Your task to perform on an android device: What's the weather today? Image 0: 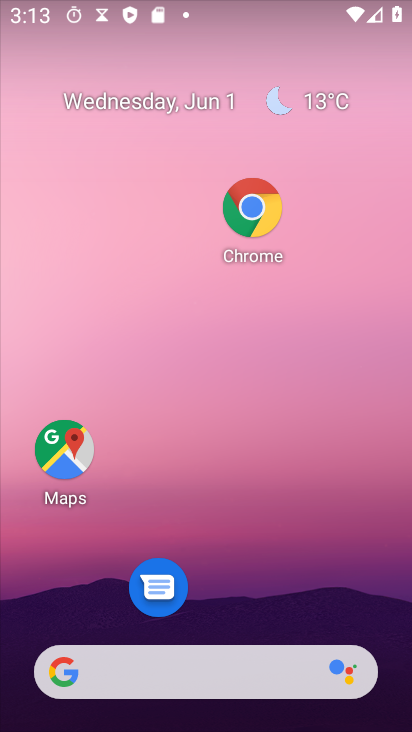
Step 0: click (144, 173)
Your task to perform on an android device: What's the weather today? Image 1: 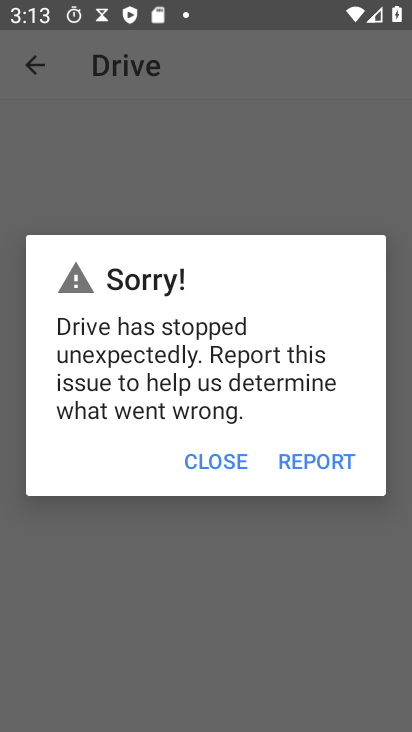
Step 1: click (218, 468)
Your task to perform on an android device: What's the weather today? Image 2: 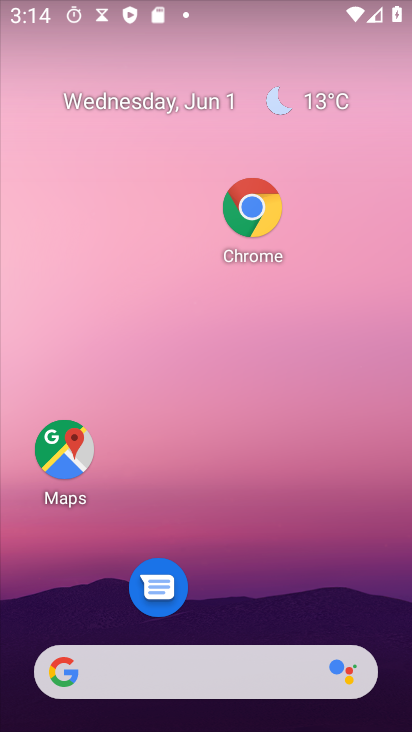
Step 2: drag from (5, 252) to (384, 388)
Your task to perform on an android device: What's the weather today? Image 3: 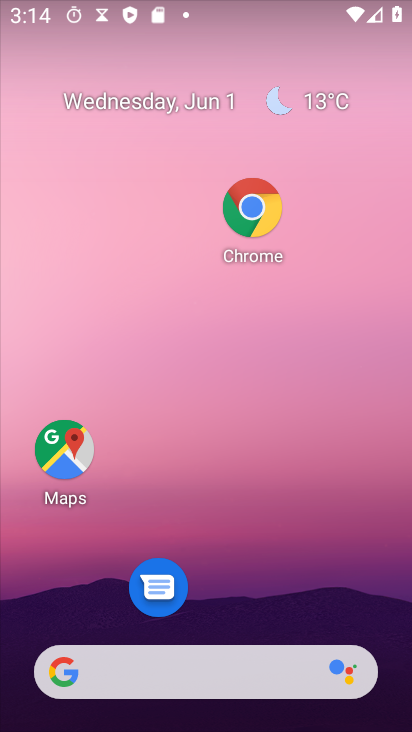
Step 3: drag from (97, 273) to (389, 425)
Your task to perform on an android device: What's the weather today? Image 4: 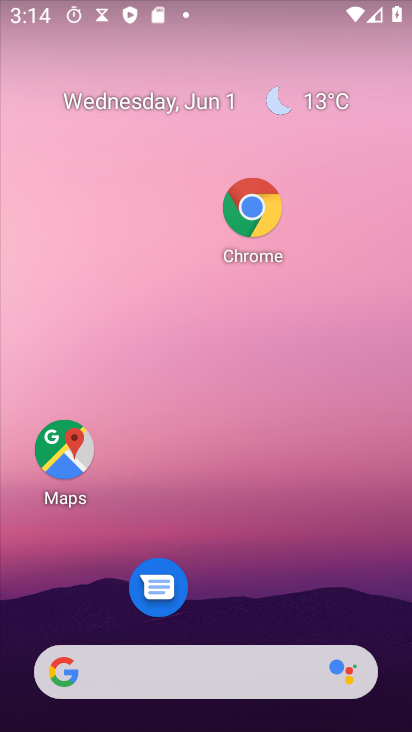
Step 4: drag from (355, 507) to (388, 531)
Your task to perform on an android device: What's the weather today? Image 5: 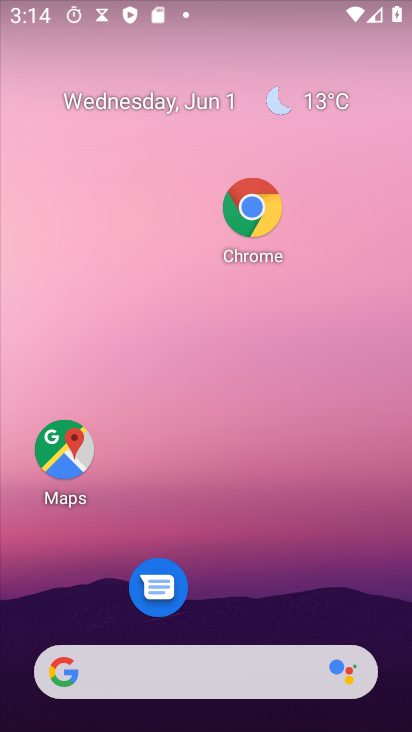
Step 5: drag from (4, 157) to (374, 471)
Your task to perform on an android device: What's the weather today? Image 6: 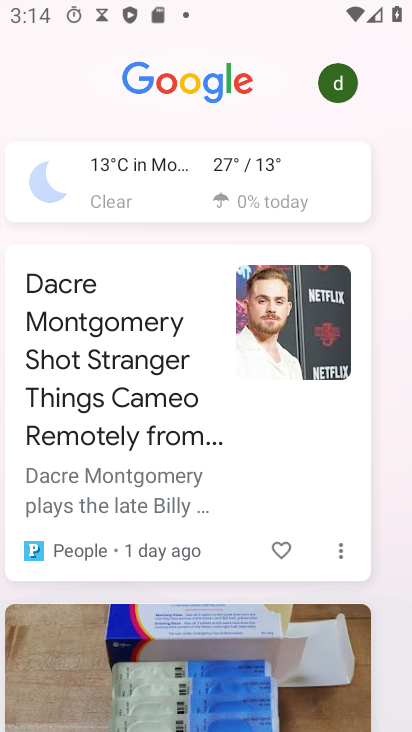
Step 6: drag from (7, 178) to (228, 433)
Your task to perform on an android device: What's the weather today? Image 7: 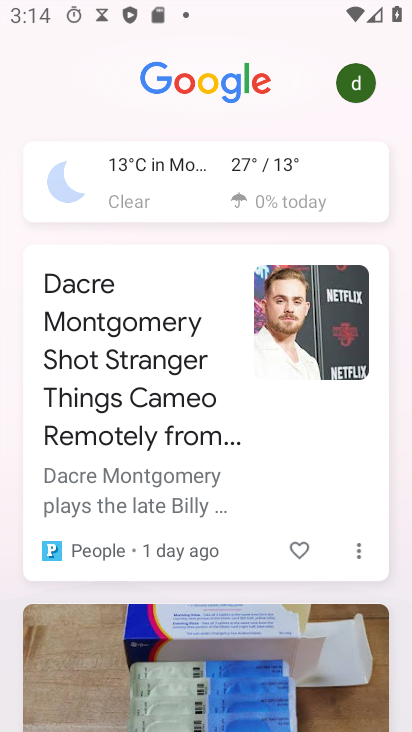
Step 7: click (161, 162)
Your task to perform on an android device: What's the weather today? Image 8: 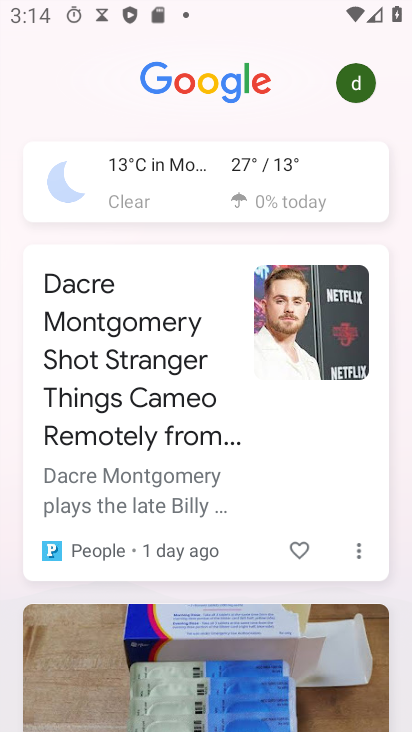
Step 8: click (160, 163)
Your task to perform on an android device: What's the weather today? Image 9: 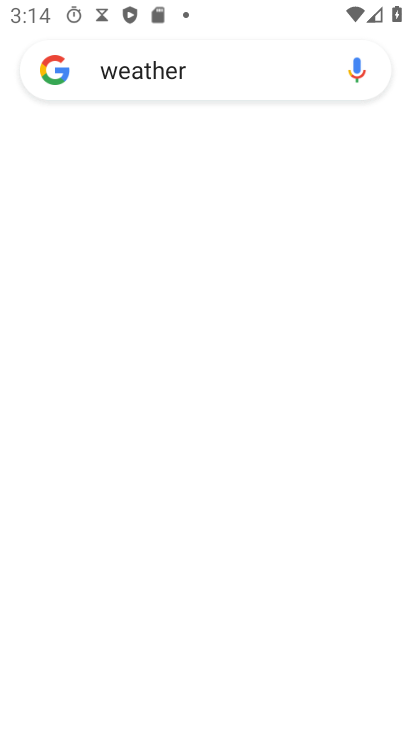
Step 9: click (156, 165)
Your task to perform on an android device: What's the weather today? Image 10: 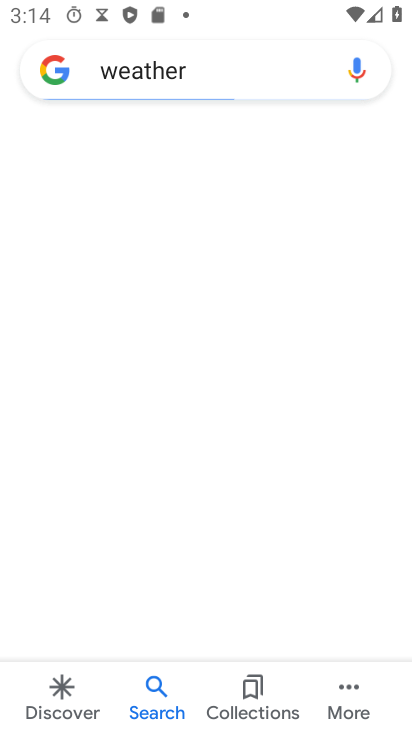
Step 10: click (155, 167)
Your task to perform on an android device: What's the weather today? Image 11: 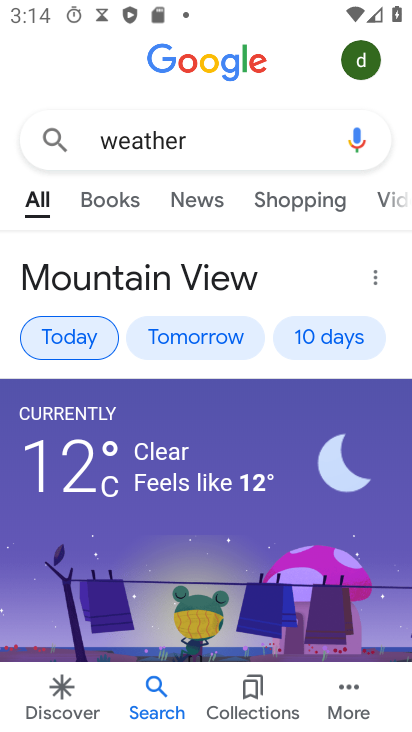
Step 11: task complete